Your task to perform on an android device: toggle translation in the chrome app Image 0: 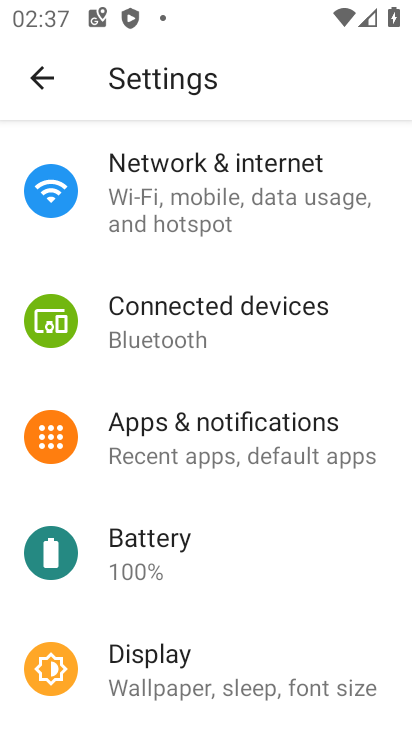
Step 0: press home button
Your task to perform on an android device: toggle translation in the chrome app Image 1: 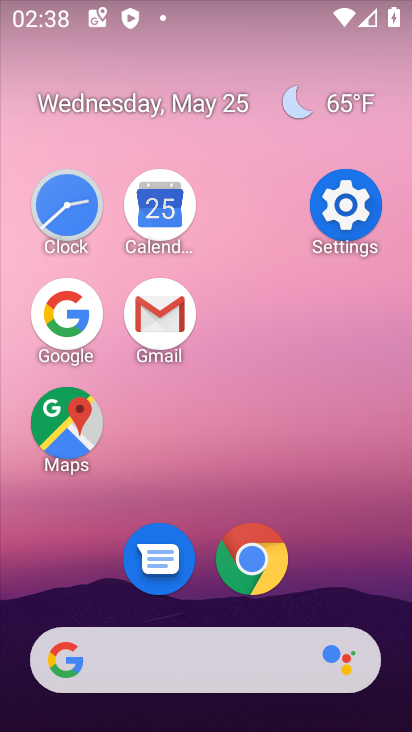
Step 1: click (265, 568)
Your task to perform on an android device: toggle translation in the chrome app Image 2: 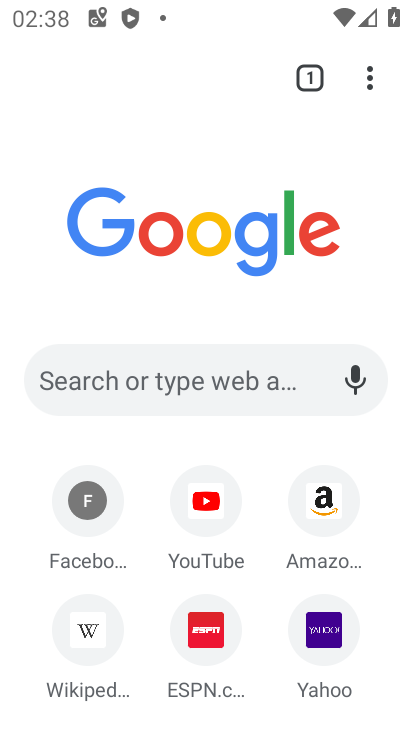
Step 2: click (374, 80)
Your task to perform on an android device: toggle translation in the chrome app Image 3: 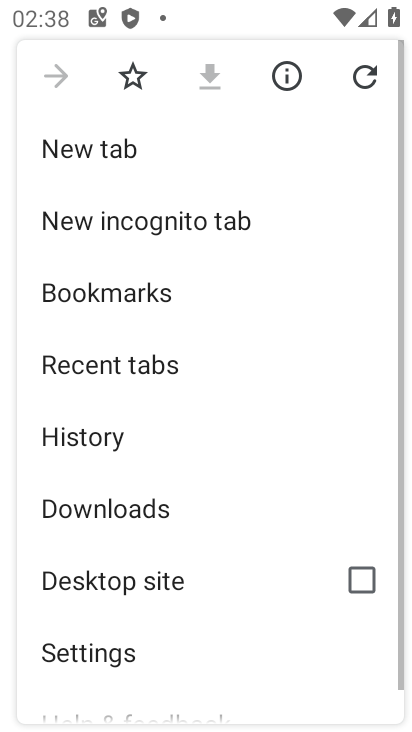
Step 3: drag from (262, 475) to (294, 186)
Your task to perform on an android device: toggle translation in the chrome app Image 4: 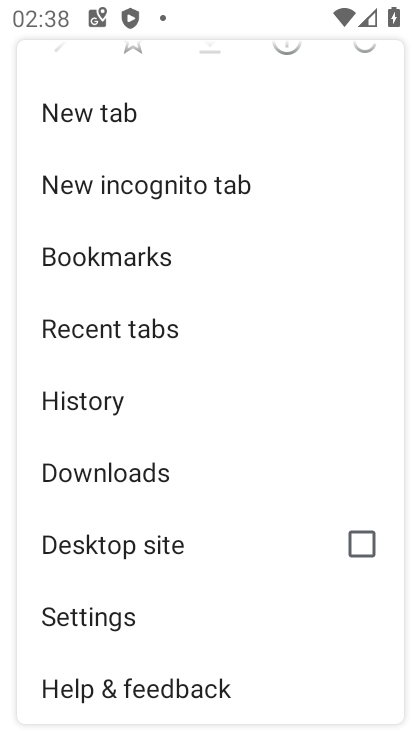
Step 4: click (171, 617)
Your task to perform on an android device: toggle translation in the chrome app Image 5: 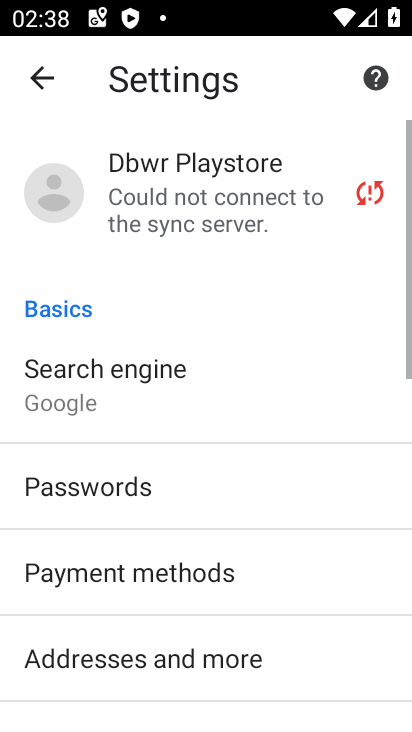
Step 5: drag from (241, 473) to (282, 123)
Your task to perform on an android device: toggle translation in the chrome app Image 6: 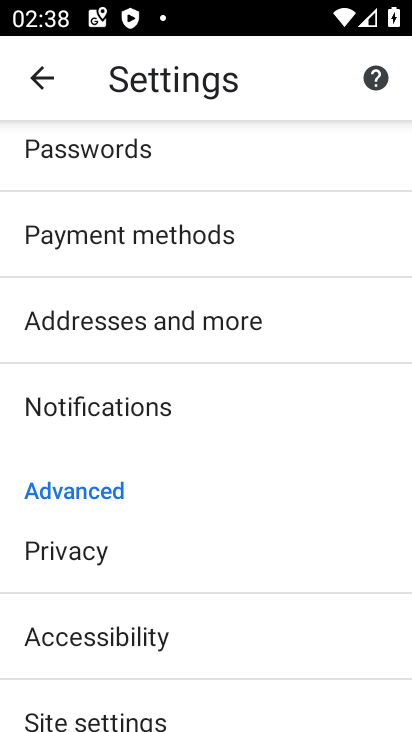
Step 6: drag from (225, 561) to (258, 227)
Your task to perform on an android device: toggle translation in the chrome app Image 7: 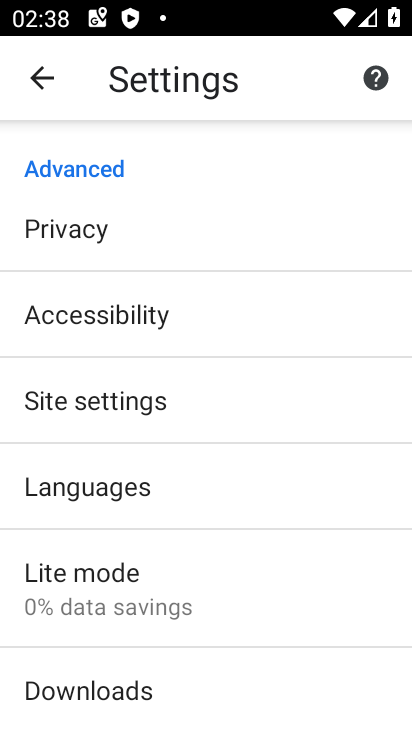
Step 7: click (231, 500)
Your task to perform on an android device: toggle translation in the chrome app Image 8: 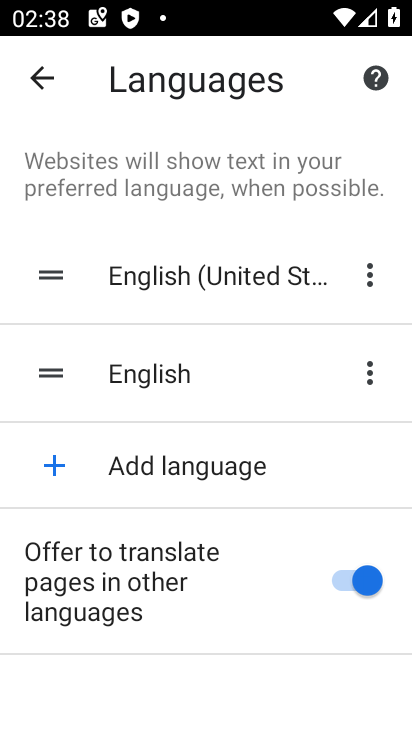
Step 8: click (358, 582)
Your task to perform on an android device: toggle translation in the chrome app Image 9: 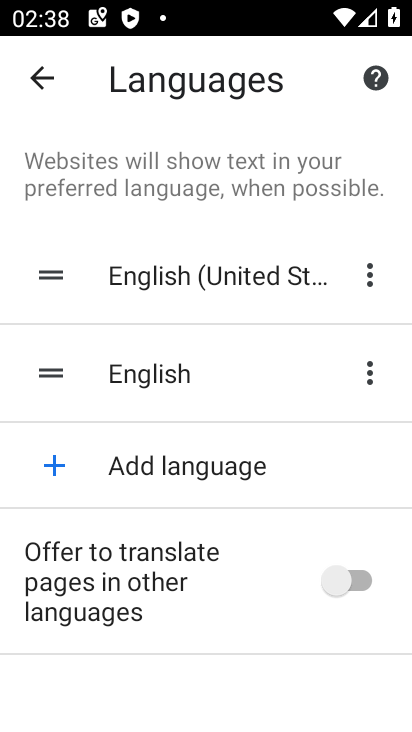
Step 9: task complete